Your task to perform on an android device: refresh tabs in the chrome app Image 0: 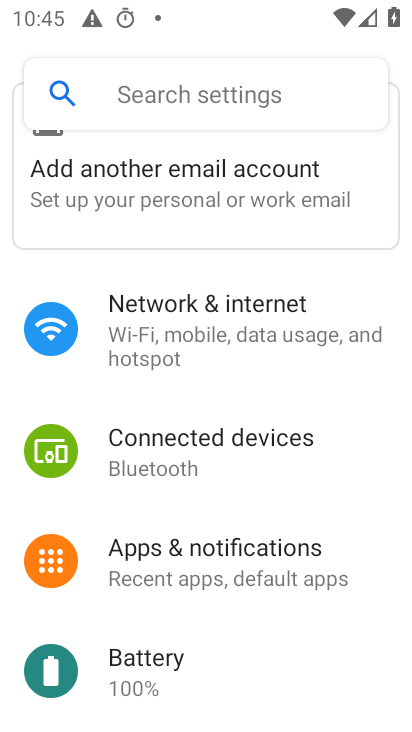
Step 0: press home button
Your task to perform on an android device: refresh tabs in the chrome app Image 1: 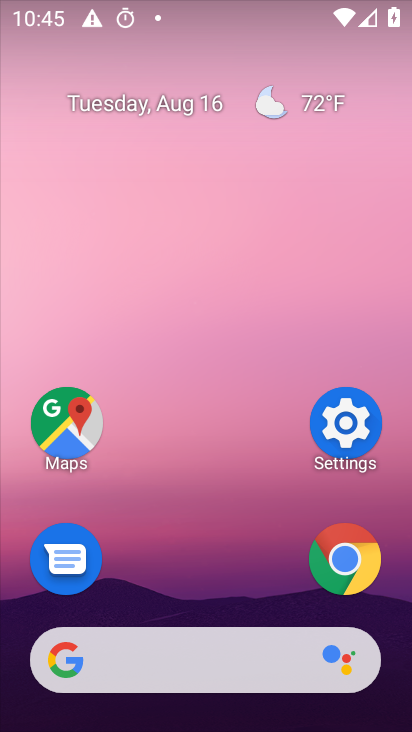
Step 1: click (351, 563)
Your task to perform on an android device: refresh tabs in the chrome app Image 2: 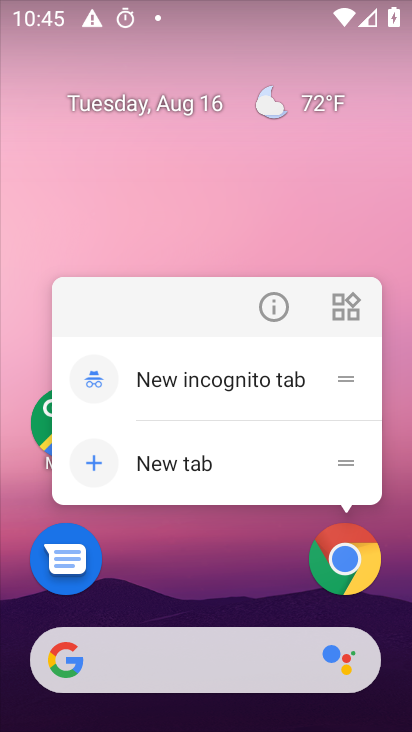
Step 2: click (344, 556)
Your task to perform on an android device: refresh tabs in the chrome app Image 3: 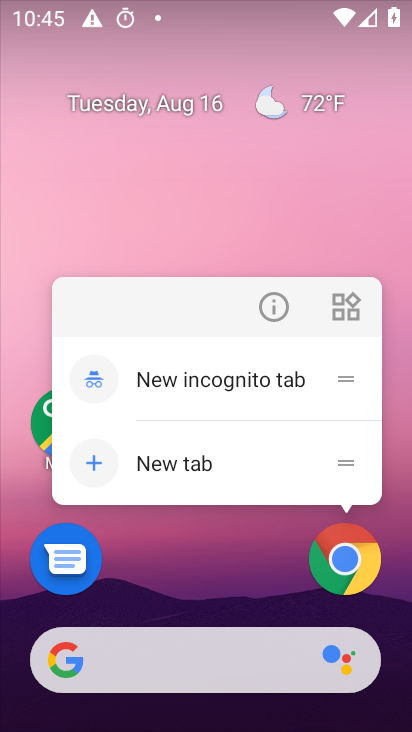
Step 3: click (344, 557)
Your task to perform on an android device: refresh tabs in the chrome app Image 4: 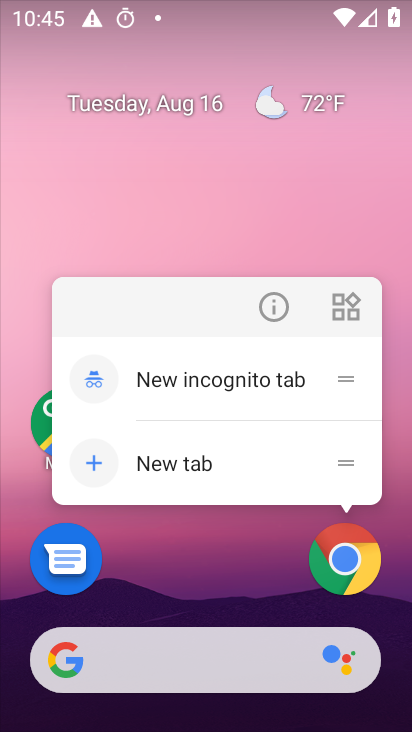
Step 4: click (319, 553)
Your task to perform on an android device: refresh tabs in the chrome app Image 5: 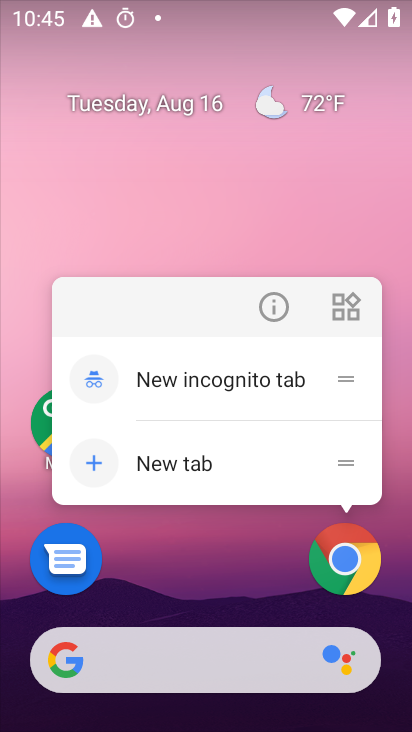
Step 5: click (350, 543)
Your task to perform on an android device: refresh tabs in the chrome app Image 6: 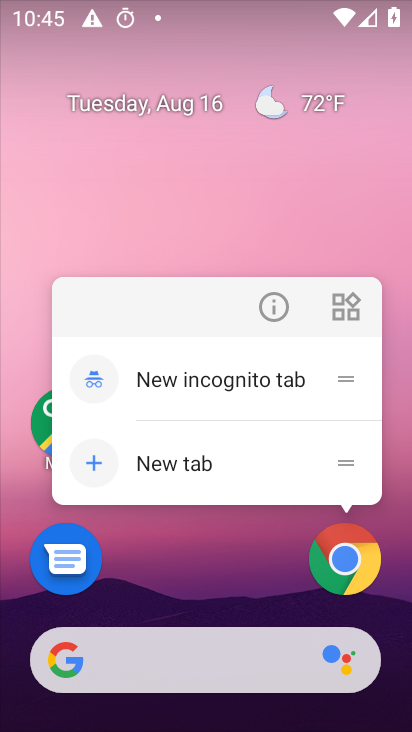
Step 6: click (352, 554)
Your task to perform on an android device: refresh tabs in the chrome app Image 7: 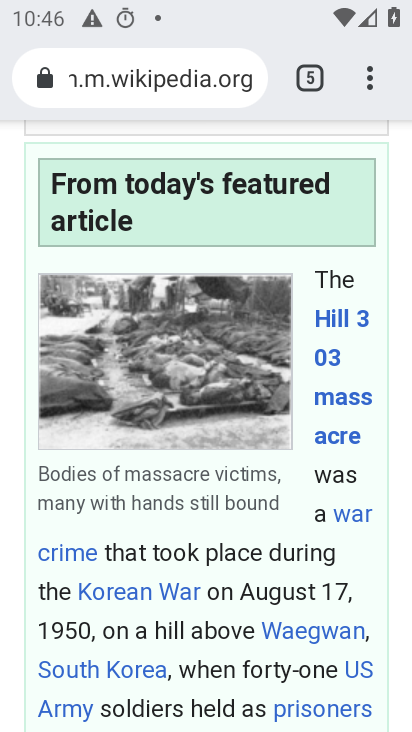
Step 7: click (368, 99)
Your task to perform on an android device: refresh tabs in the chrome app Image 8: 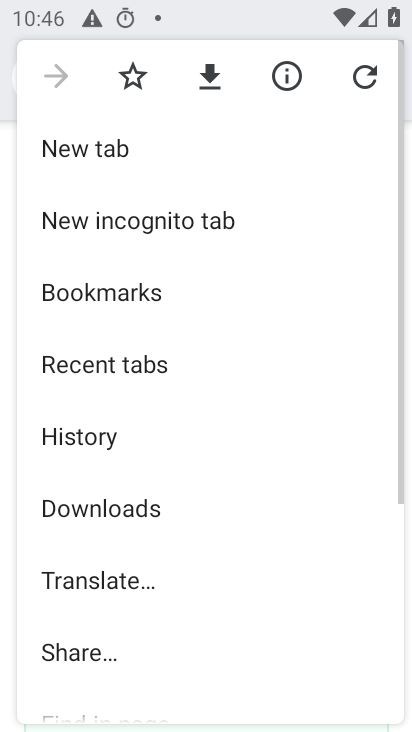
Step 8: click (361, 80)
Your task to perform on an android device: refresh tabs in the chrome app Image 9: 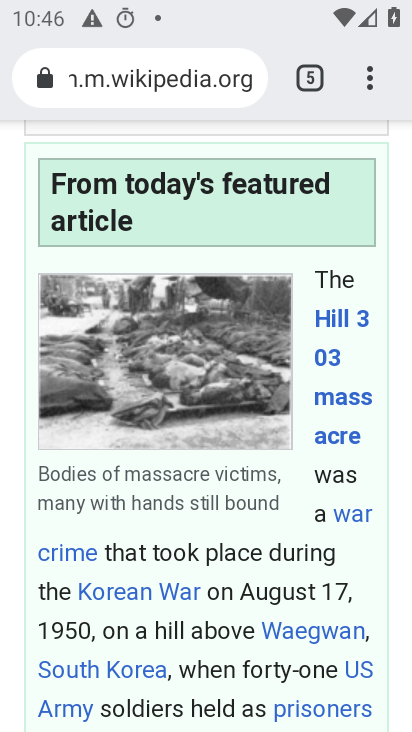
Step 9: task complete